Your task to perform on an android device: Toggle the flashlight Image 0: 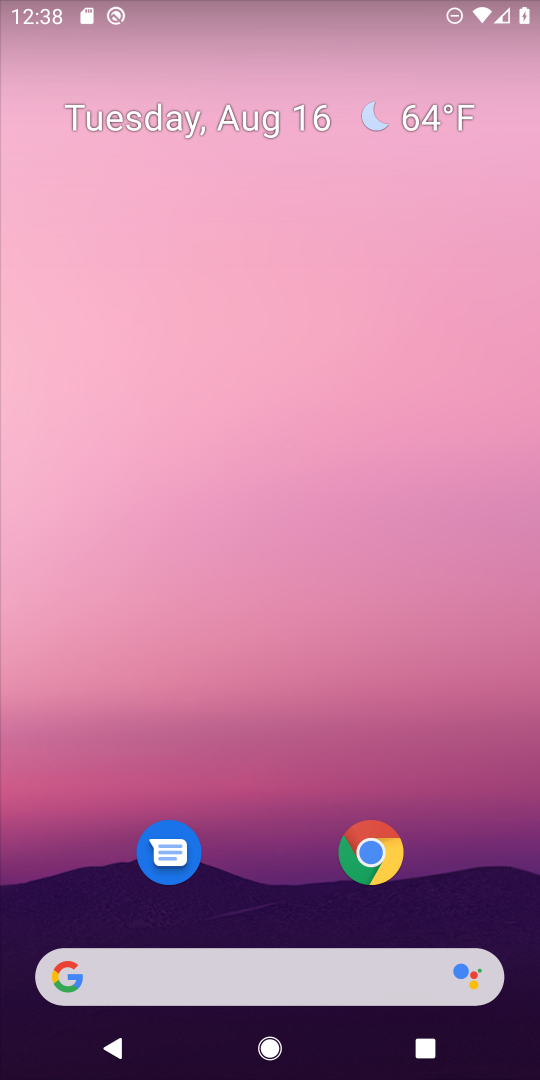
Step 0: drag from (273, 955) to (290, 0)
Your task to perform on an android device: Toggle the flashlight Image 1: 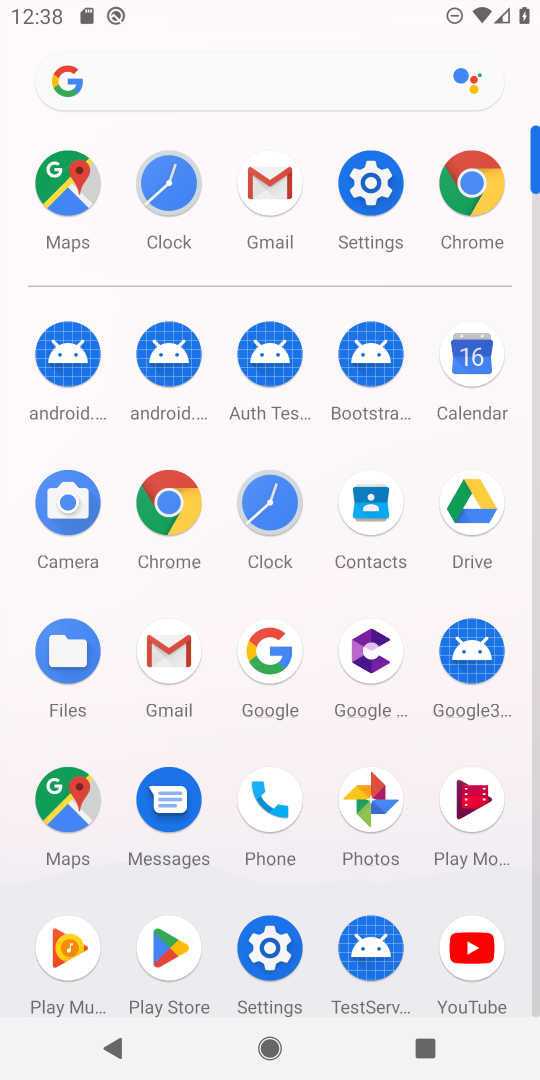
Step 1: click (367, 179)
Your task to perform on an android device: Toggle the flashlight Image 2: 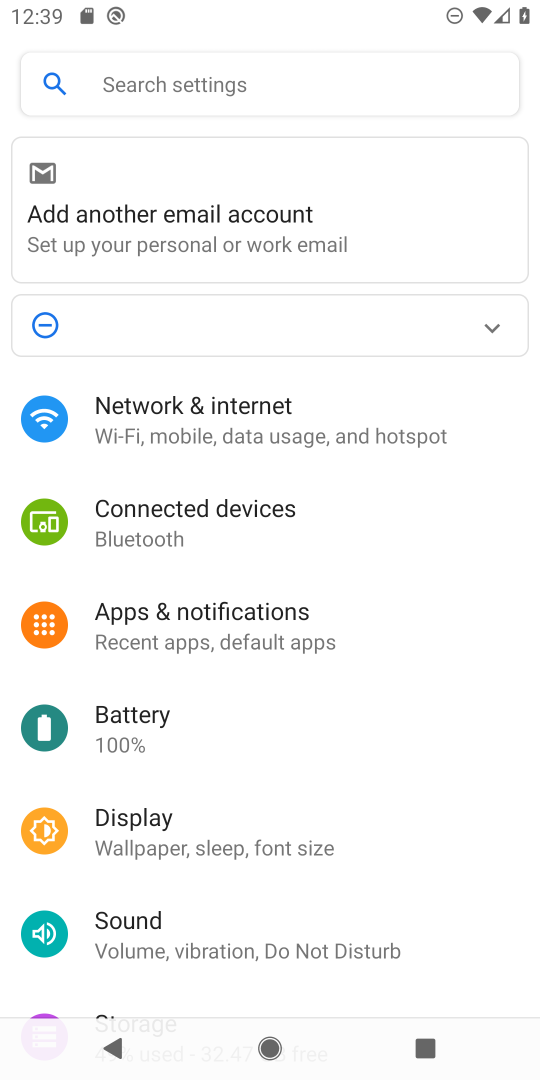
Step 2: click (227, 83)
Your task to perform on an android device: Toggle the flashlight Image 3: 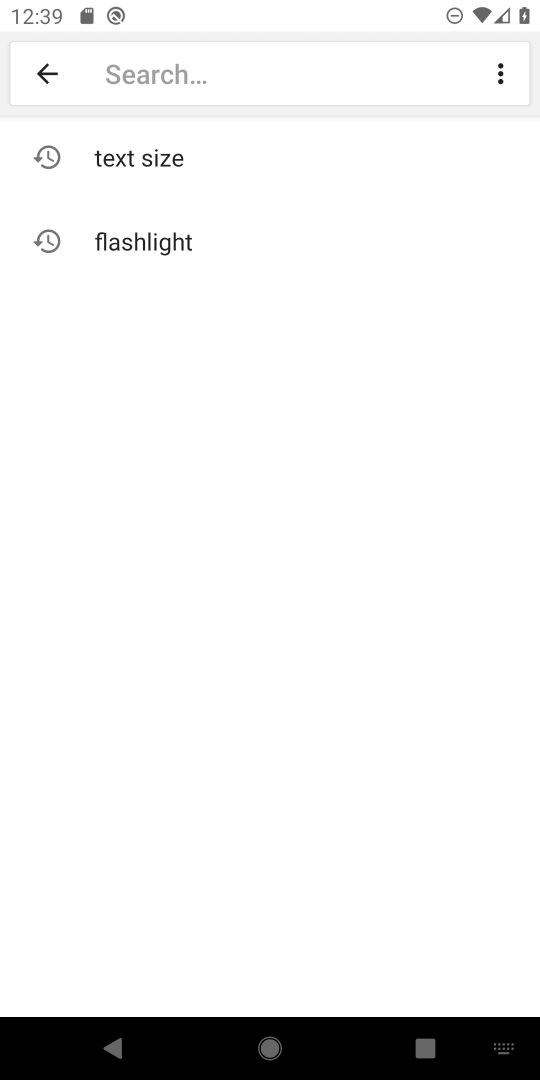
Step 3: type "flashlight"
Your task to perform on an android device: Toggle the flashlight Image 4: 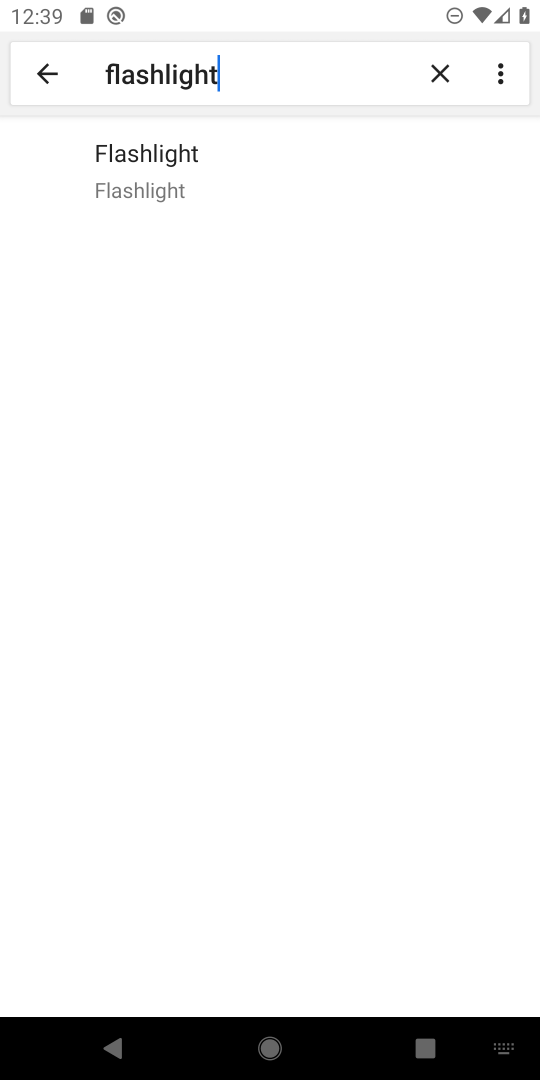
Step 4: click (149, 151)
Your task to perform on an android device: Toggle the flashlight Image 5: 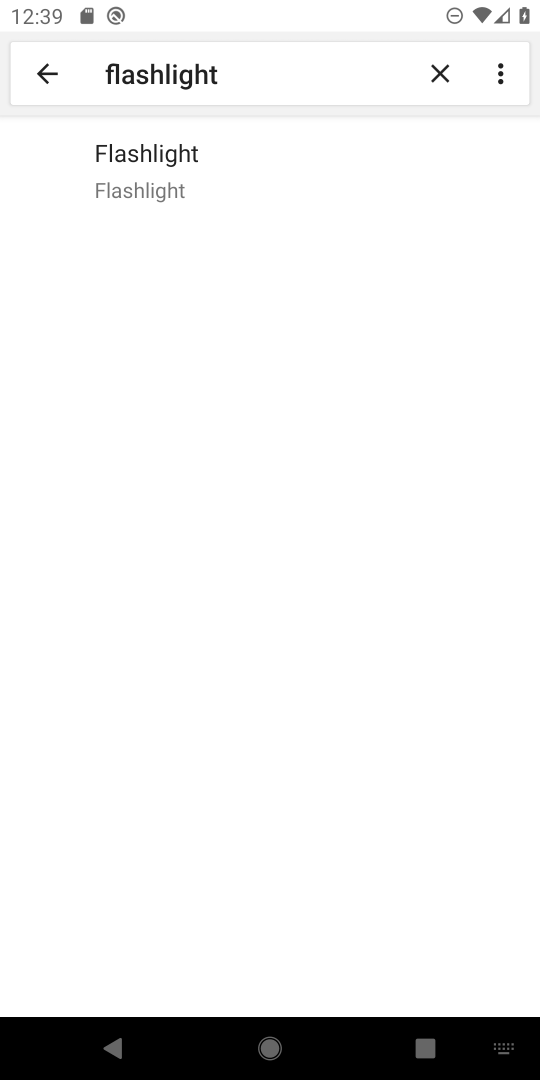
Step 5: click (149, 151)
Your task to perform on an android device: Toggle the flashlight Image 6: 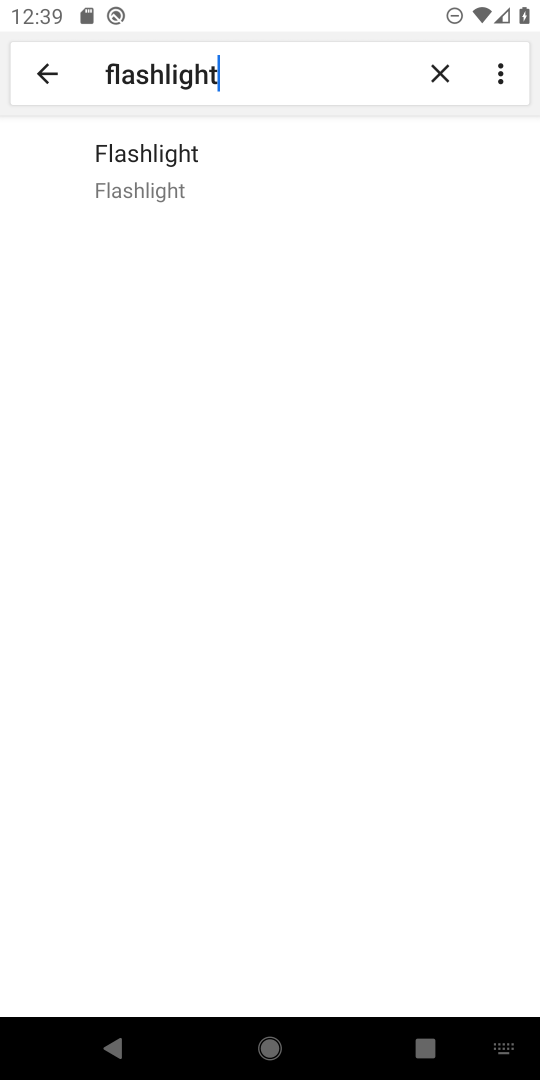
Step 6: task complete